Your task to perform on an android device: Open eBay Image 0: 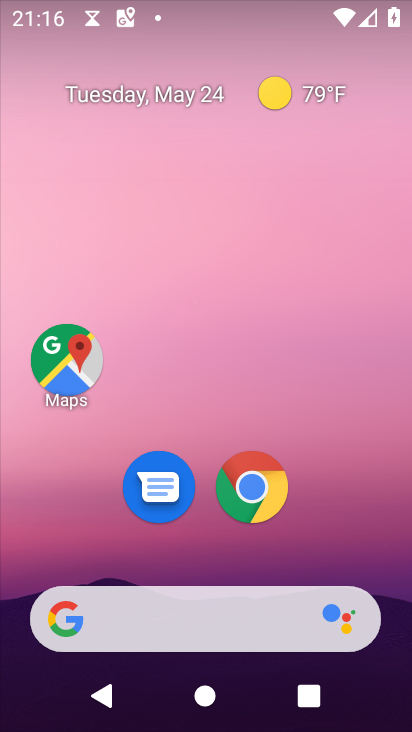
Step 0: press home button
Your task to perform on an android device: Open eBay Image 1: 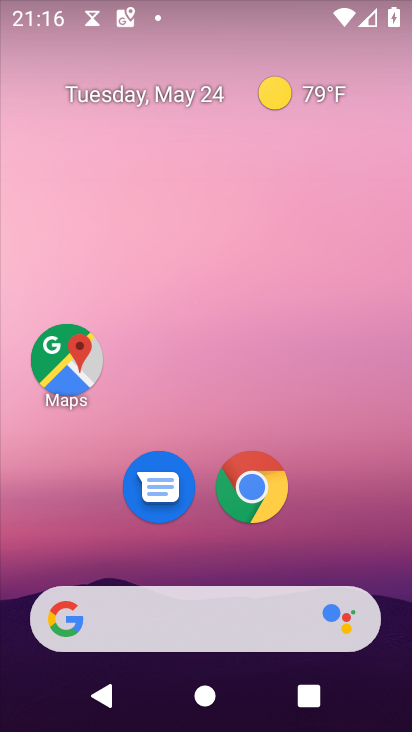
Step 1: click (246, 499)
Your task to perform on an android device: Open eBay Image 2: 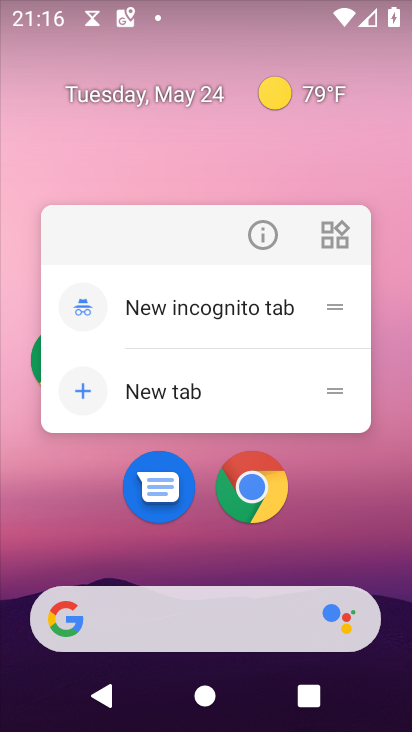
Step 2: click (271, 486)
Your task to perform on an android device: Open eBay Image 3: 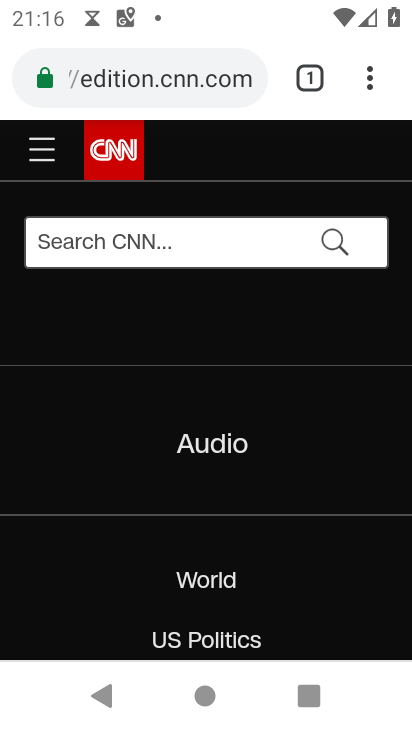
Step 3: click (162, 67)
Your task to perform on an android device: Open eBay Image 4: 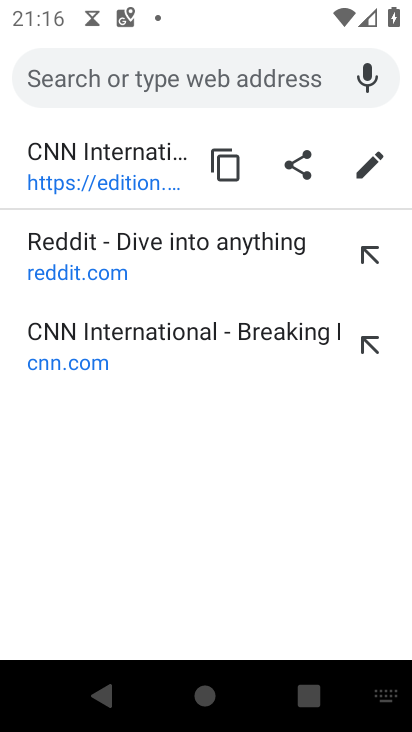
Step 4: type "eBay"
Your task to perform on an android device: Open eBay Image 5: 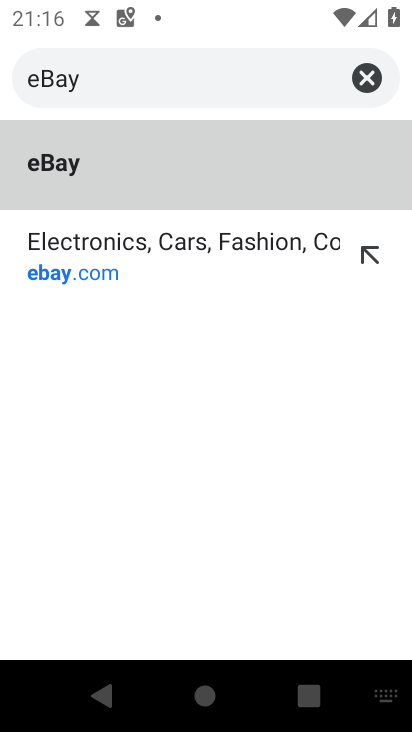
Step 5: click (107, 183)
Your task to perform on an android device: Open eBay Image 6: 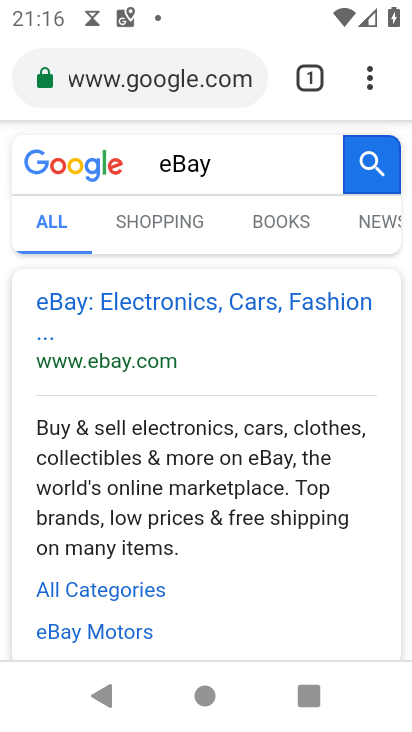
Step 6: task complete